Your task to perform on an android device: turn off airplane mode Image 0: 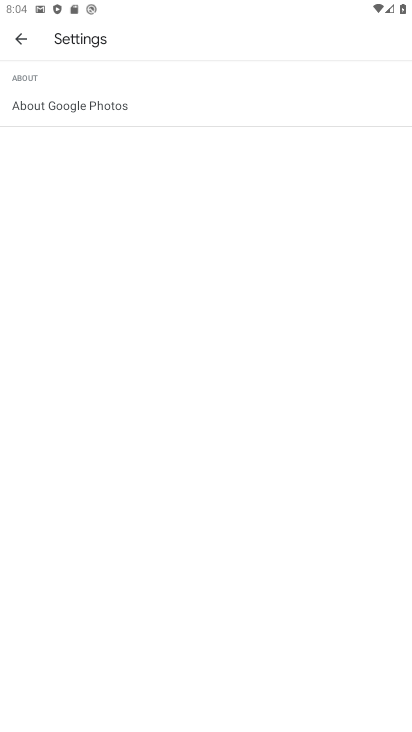
Step 0: press home button
Your task to perform on an android device: turn off airplane mode Image 1: 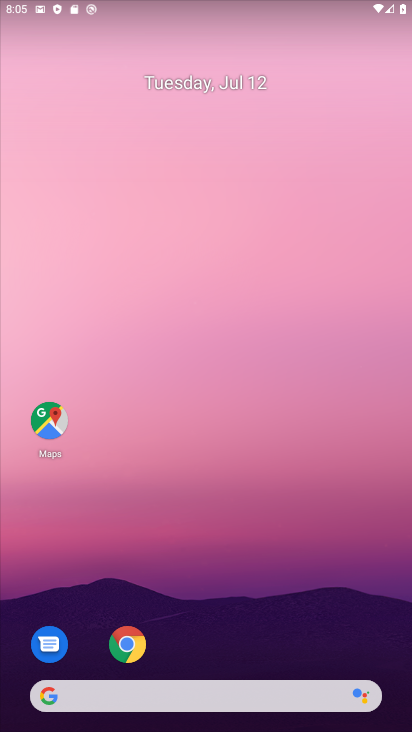
Step 1: drag from (185, 701) to (255, 174)
Your task to perform on an android device: turn off airplane mode Image 2: 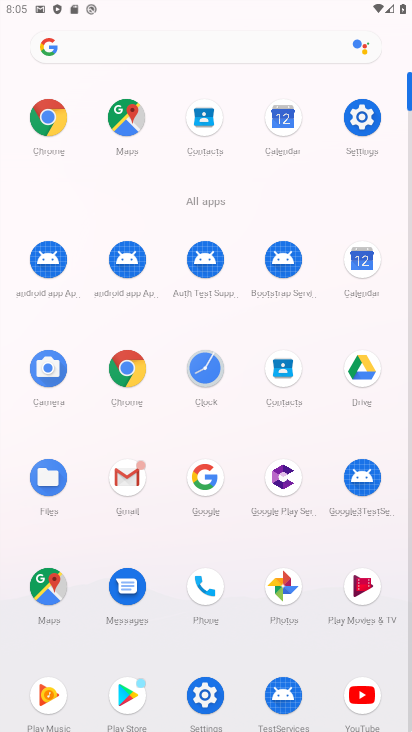
Step 2: click (205, 695)
Your task to perform on an android device: turn off airplane mode Image 3: 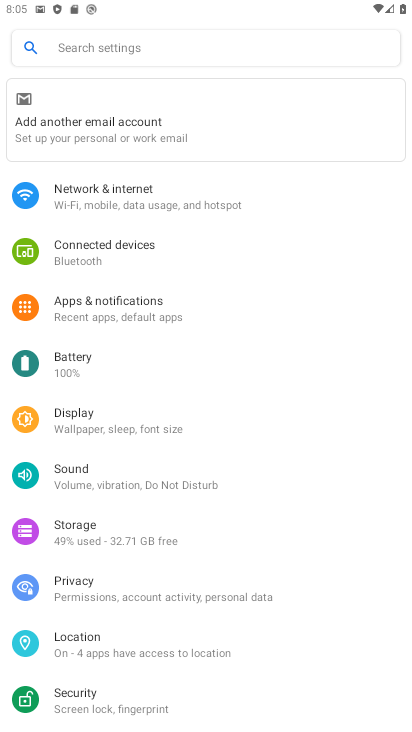
Step 3: click (148, 198)
Your task to perform on an android device: turn off airplane mode Image 4: 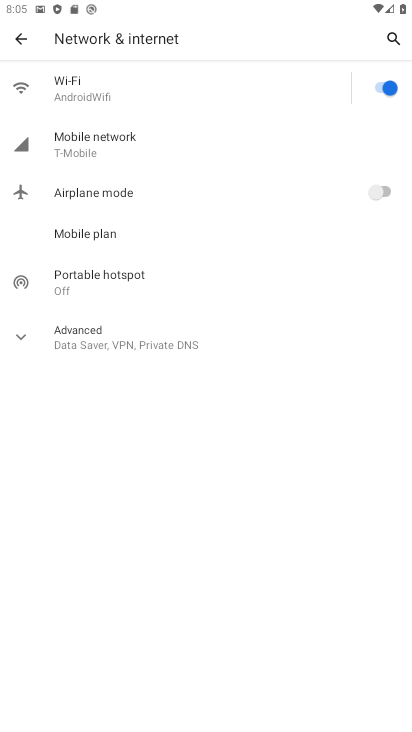
Step 4: task complete